Your task to perform on an android device: move an email to a new category in the gmail app Image 0: 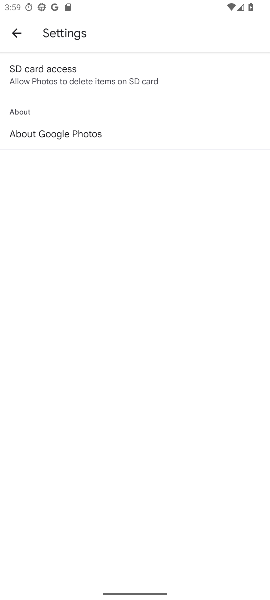
Step 0: drag from (105, 502) to (161, 173)
Your task to perform on an android device: move an email to a new category in the gmail app Image 1: 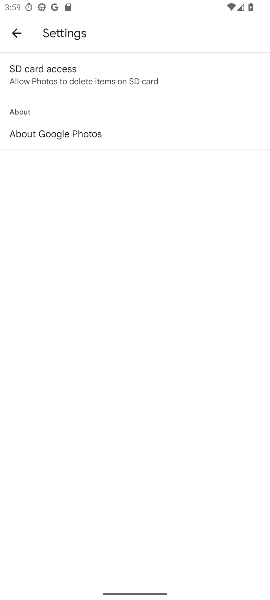
Step 1: press home button
Your task to perform on an android device: move an email to a new category in the gmail app Image 2: 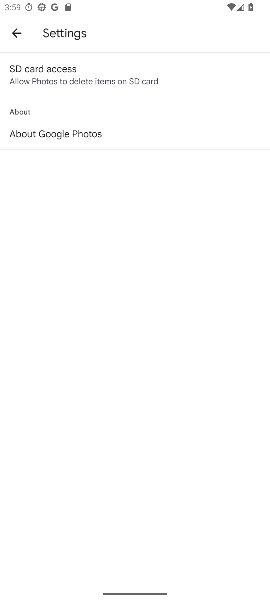
Step 2: press home button
Your task to perform on an android device: move an email to a new category in the gmail app Image 3: 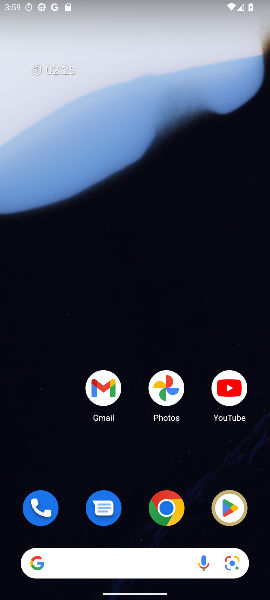
Step 3: click (101, 395)
Your task to perform on an android device: move an email to a new category in the gmail app Image 4: 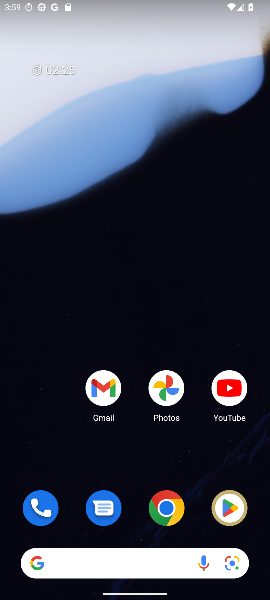
Step 4: click (101, 396)
Your task to perform on an android device: move an email to a new category in the gmail app Image 5: 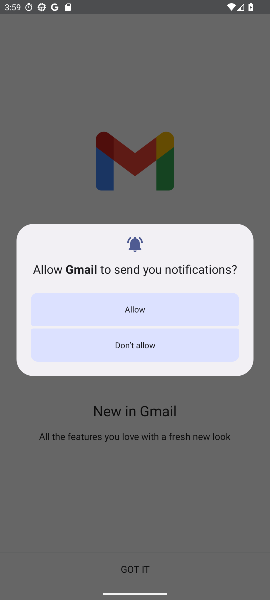
Step 5: click (153, 313)
Your task to perform on an android device: move an email to a new category in the gmail app Image 6: 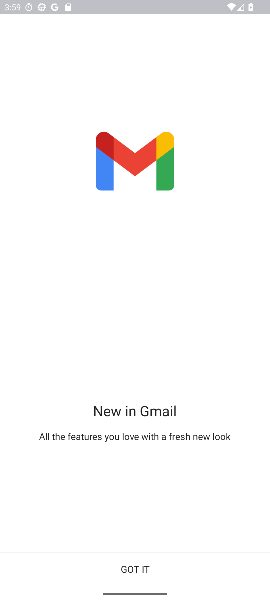
Step 6: click (163, 568)
Your task to perform on an android device: move an email to a new category in the gmail app Image 7: 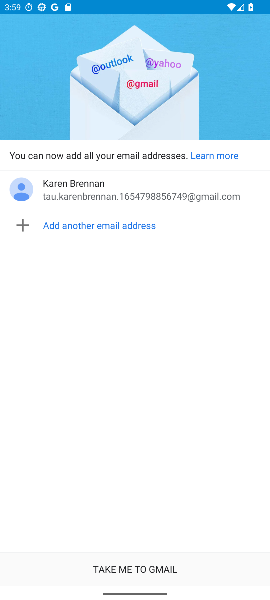
Step 7: click (163, 568)
Your task to perform on an android device: move an email to a new category in the gmail app Image 8: 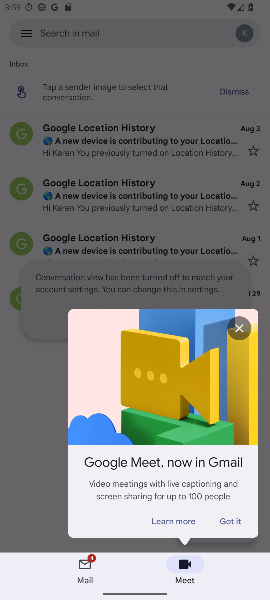
Step 8: click (243, 329)
Your task to perform on an android device: move an email to a new category in the gmail app Image 9: 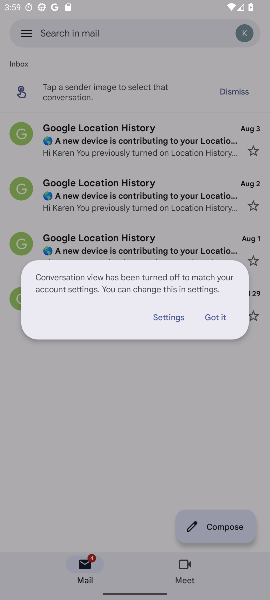
Step 9: click (208, 317)
Your task to perform on an android device: move an email to a new category in the gmail app Image 10: 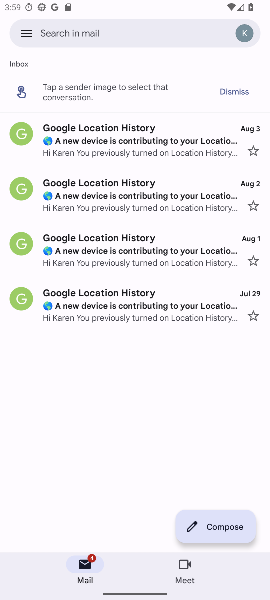
Step 10: drag from (105, 471) to (124, 307)
Your task to perform on an android device: move an email to a new category in the gmail app Image 11: 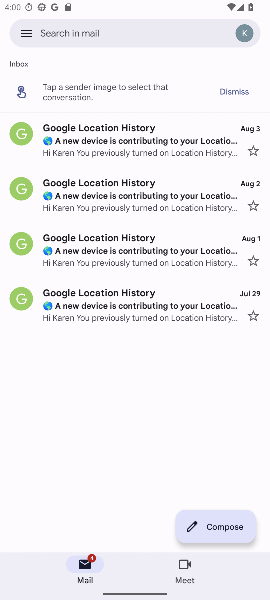
Step 11: click (248, 154)
Your task to perform on an android device: move an email to a new category in the gmail app Image 12: 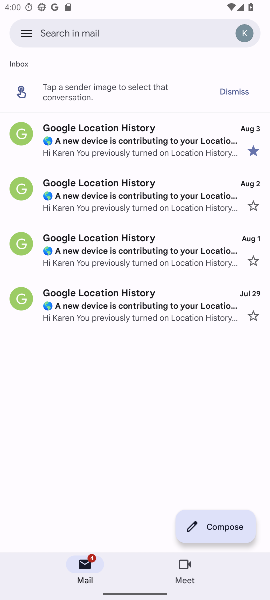
Step 12: task complete